Your task to perform on an android device: Open battery settings Image 0: 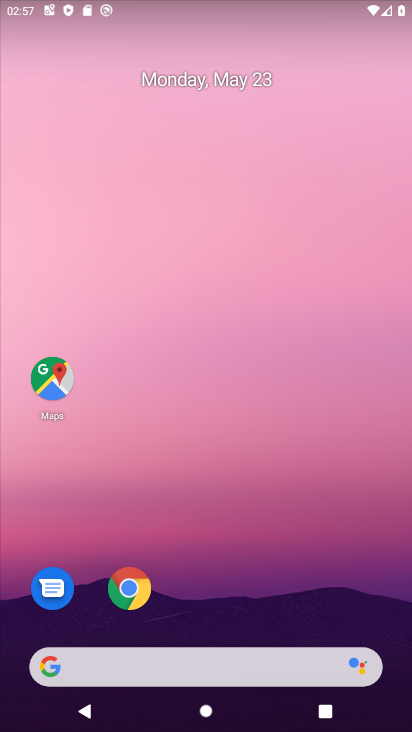
Step 0: drag from (229, 702) to (192, 160)
Your task to perform on an android device: Open battery settings Image 1: 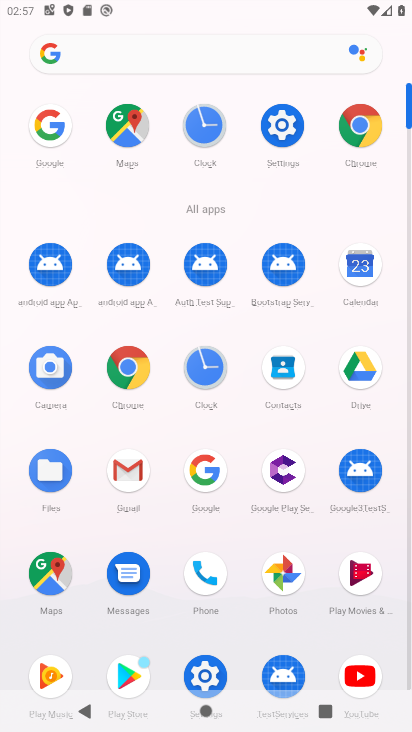
Step 1: click (289, 120)
Your task to perform on an android device: Open battery settings Image 2: 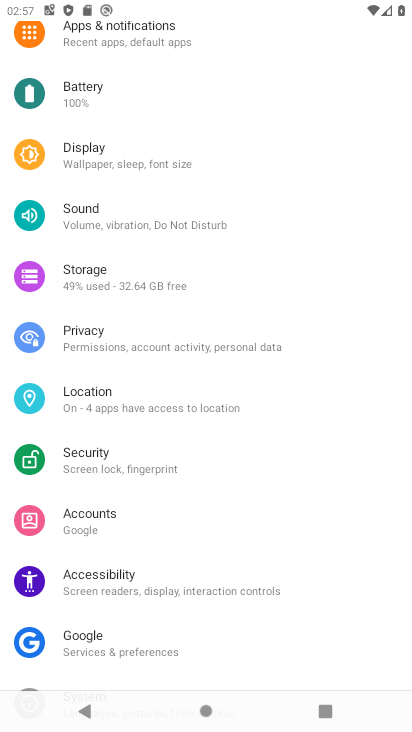
Step 2: click (88, 102)
Your task to perform on an android device: Open battery settings Image 3: 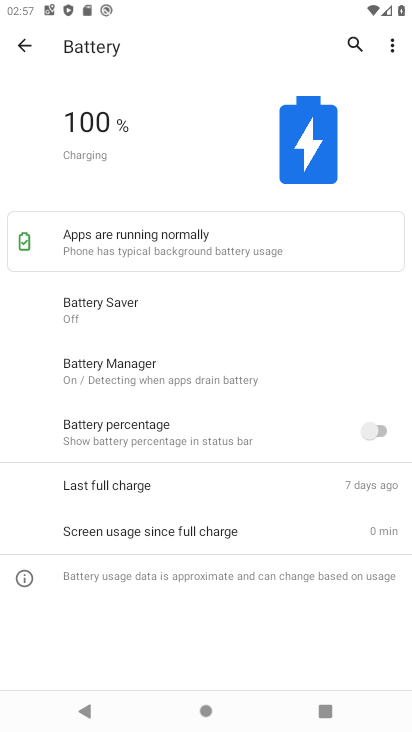
Step 3: task complete